Your task to perform on an android device: open the mobile data screen to see how much data has been used Image 0: 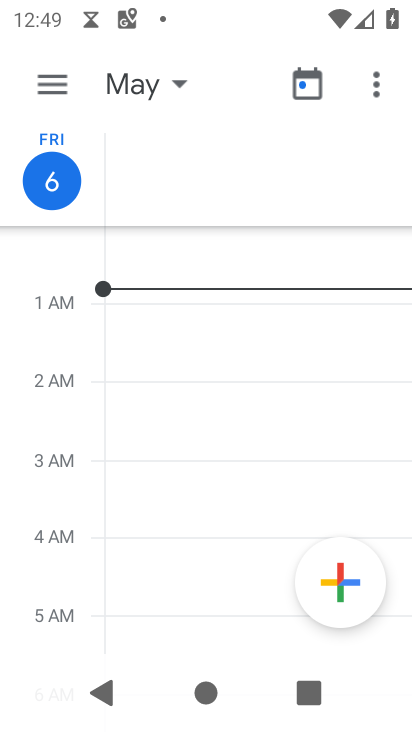
Step 0: press home button
Your task to perform on an android device: open the mobile data screen to see how much data has been used Image 1: 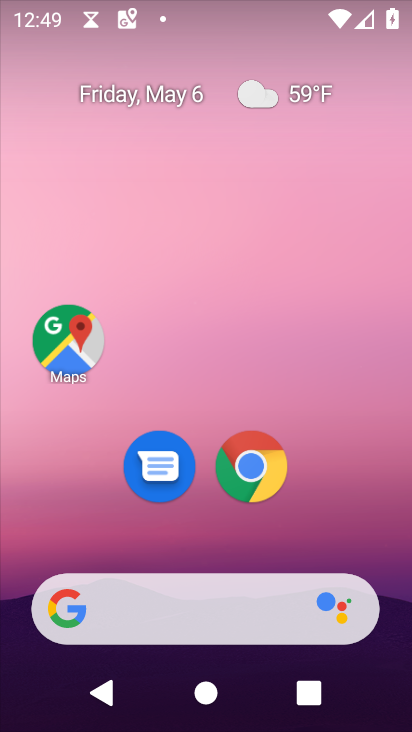
Step 1: drag from (377, 529) to (322, 84)
Your task to perform on an android device: open the mobile data screen to see how much data has been used Image 2: 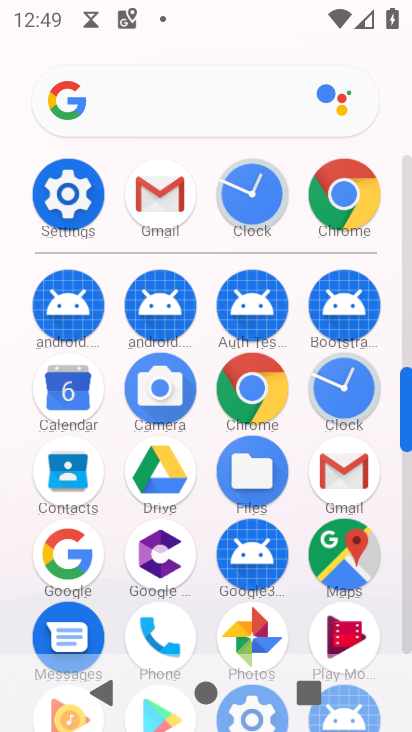
Step 2: click (62, 199)
Your task to perform on an android device: open the mobile data screen to see how much data has been used Image 3: 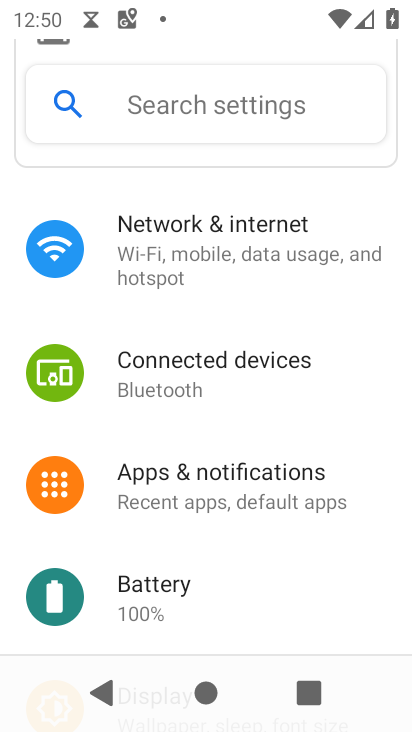
Step 3: click (278, 219)
Your task to perform on an android device: open the mobile data screen to see how much data has been used Image 4: 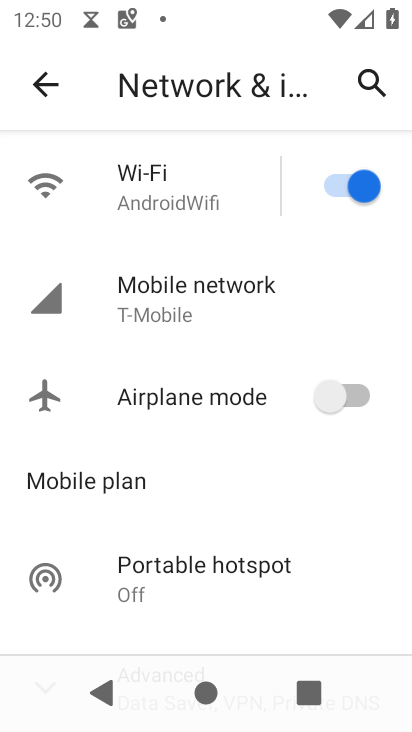
Step 4: click (247, 302)
Your task to perform on an android device: open the mobile data screen to see how much data has been used Image 5: 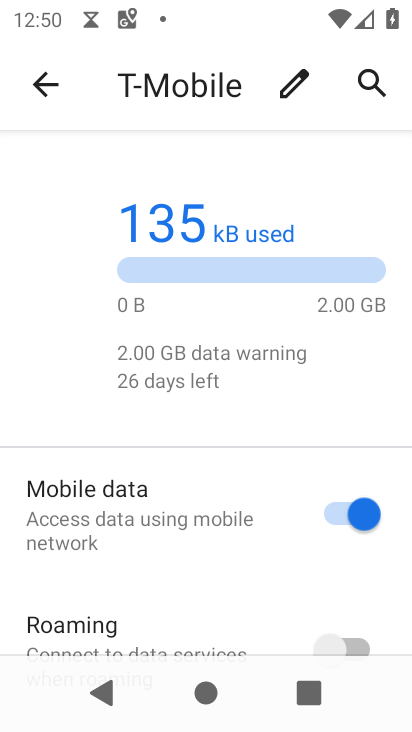
Step 5: task complete